Your task to perform on an android device: Open Google Image 0: 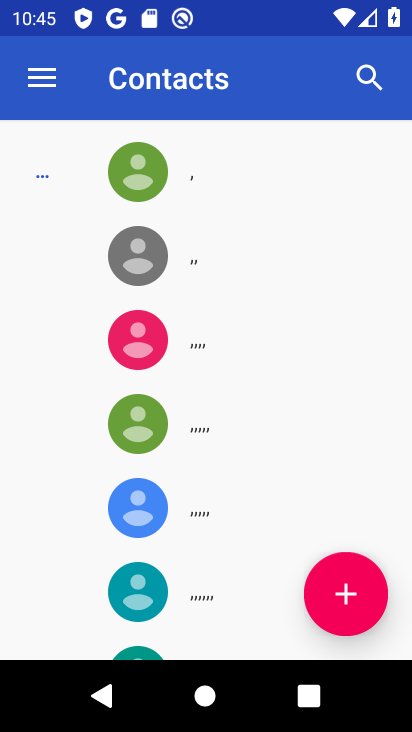
Step 0: press home button
Your task to perform on an android device: Open Google Image 1: 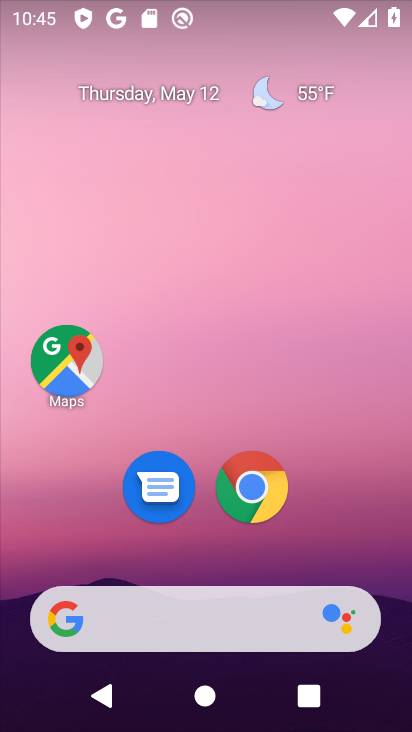
Step 1: drag from (359, 564) to (339, 9)
Your task to perform on an android device: Open Google Image 2: 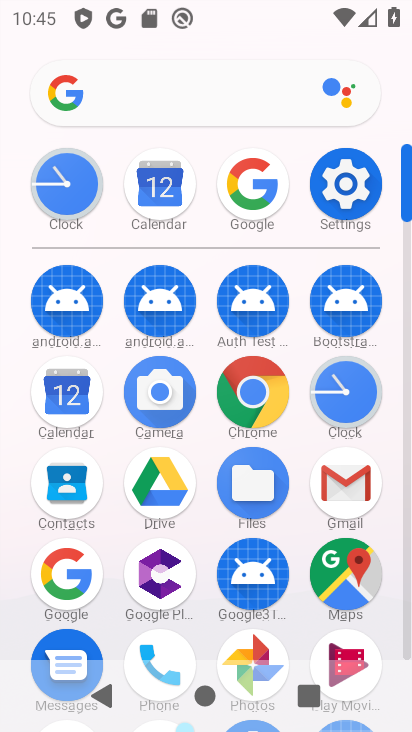
Step 2: click (79, 576)
Your task to perform on an android device: Open Google Image 3: 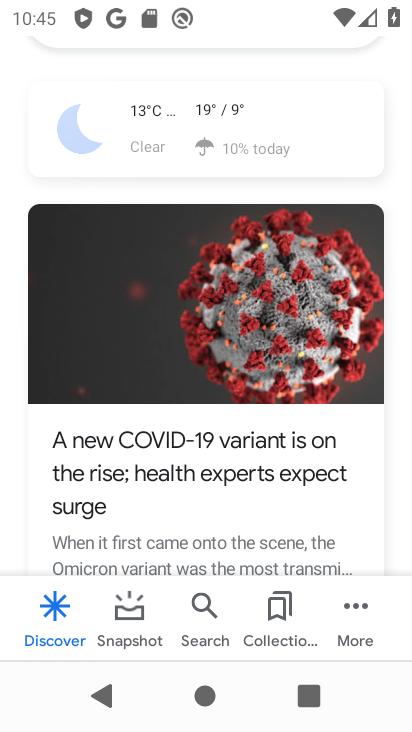
Step 3: task complete